Your task to perform on an android device: What's on my calendar tomorrow? Image 0: 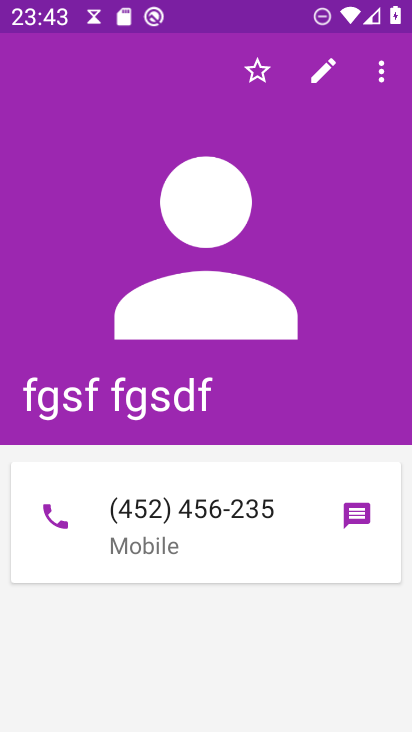
Step 0: press home button
Your task to perform on an android device: What's on my calendar tomorrow? Image 1: 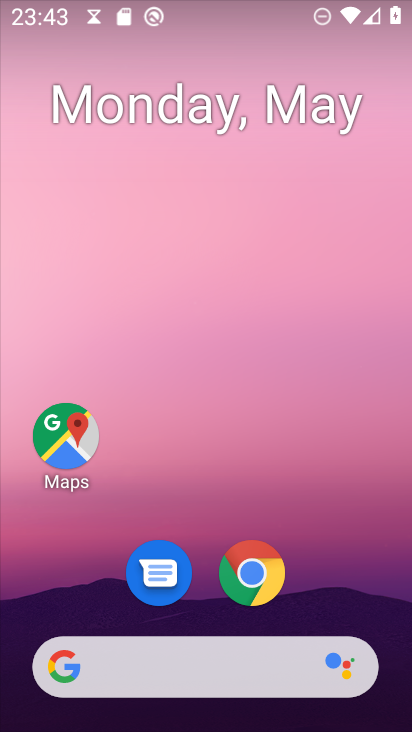
Step 1: drag from (326, 508) to (244, 83)
Your task to perform on an android device: What's on my calendar tomorrow? Image 2: 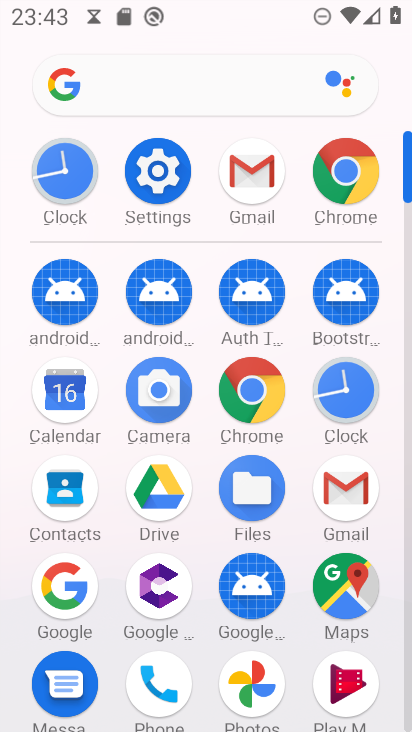
Step 2: click (76, 411)
Your task to perform on an android device: What's on my calendar tomorrow? Image 3: 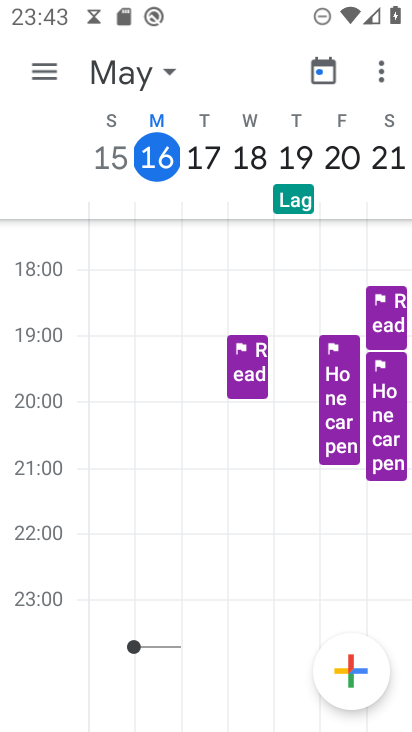
Step 3: task complete